Your task to perform on an android device: Empty the shopping cart on walmart. Add "jbl flip 4" to the cart on walmart Image 0: 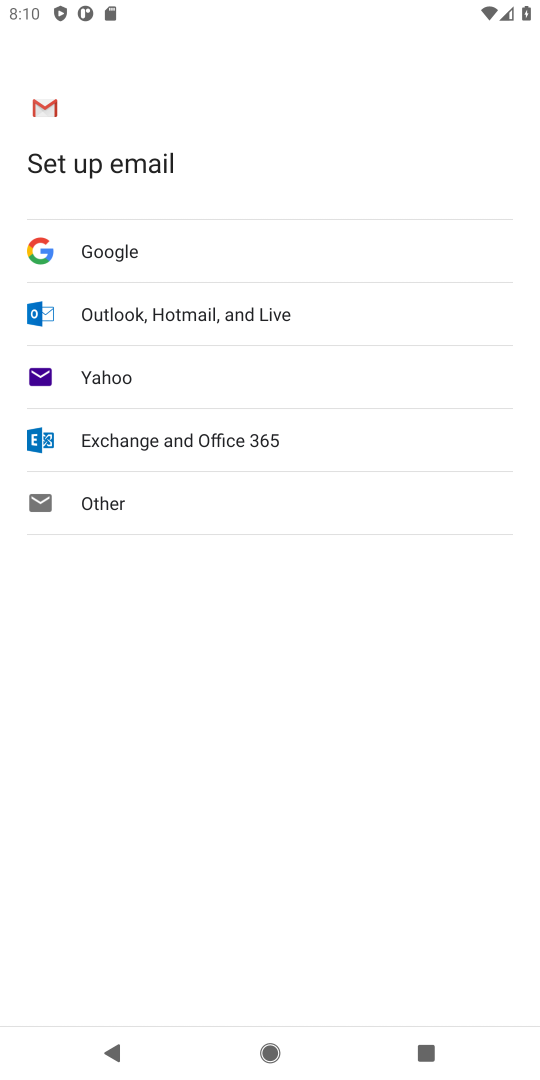
Step 0: press home button
Your task to perform on an android device: Empty the shopping cart on walmart. Add "jbl flip 4" to the cart on walmart Image 1: 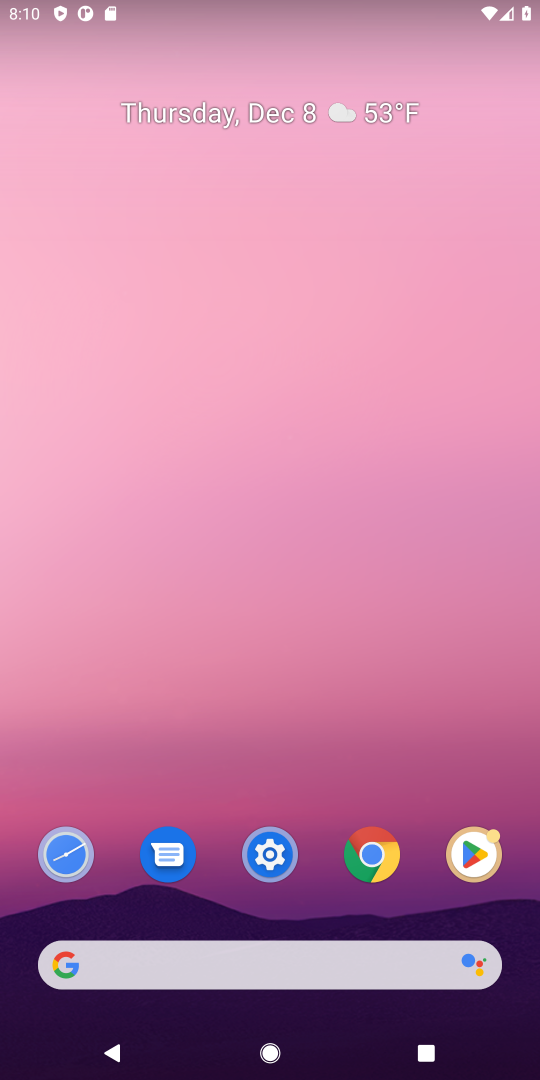
Step 1: click (117, 956)
Your task to perform on an android device: Empty the shopping cart on walmart. Add "jbl flip 4" to the cart on walmart Image 2: 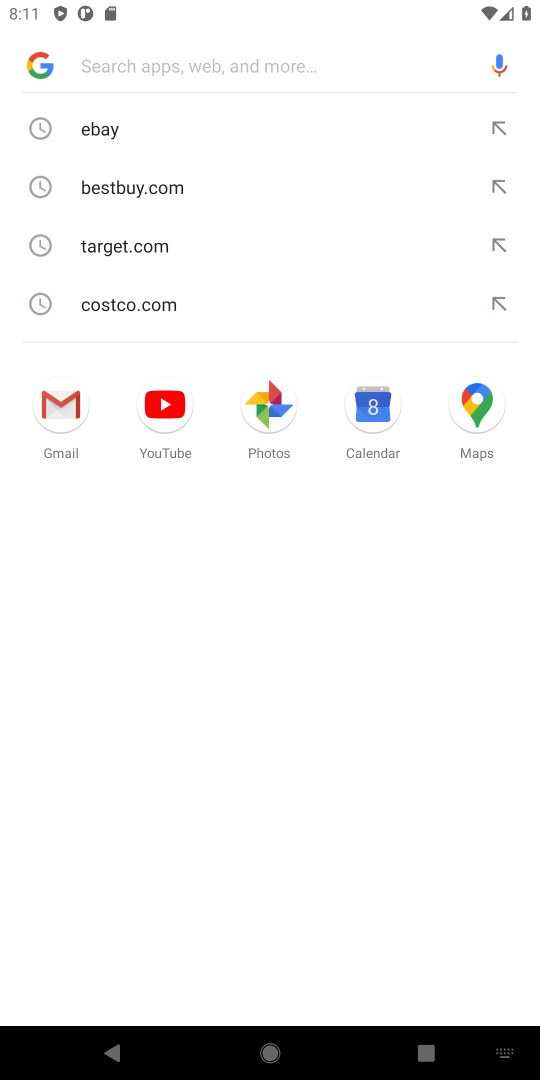
Step 2: type "walmart"
Your task to perform on an android device: Empty the shopping cart on walmart. Add "jbl flip 4" to the cart on walmart Image 3: 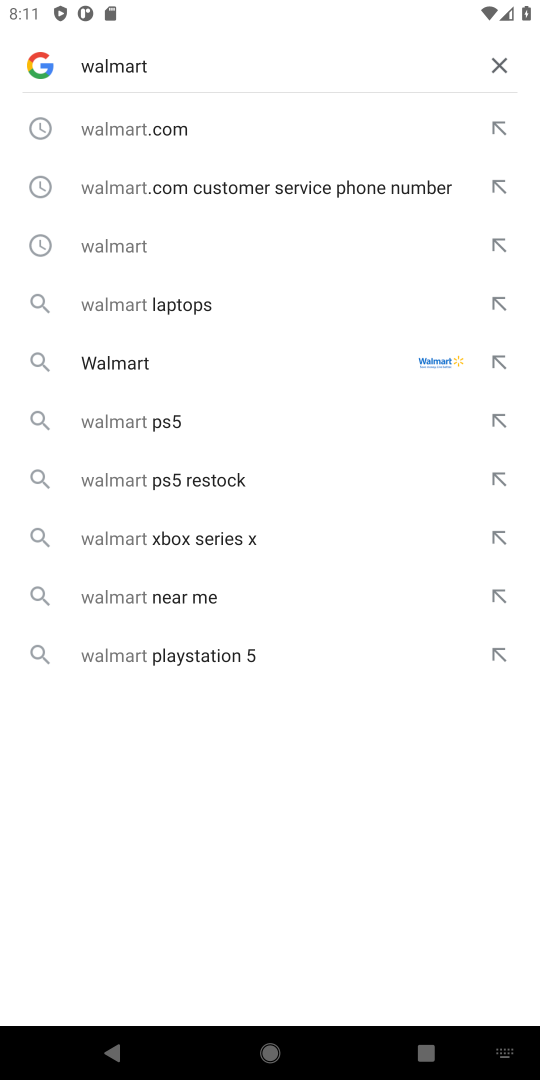
Step 3: press enter
Your task to perform on an android device: Empty the shopping cart on walmart. Add "jbl flip 4" to the cart on walmart Image 4: 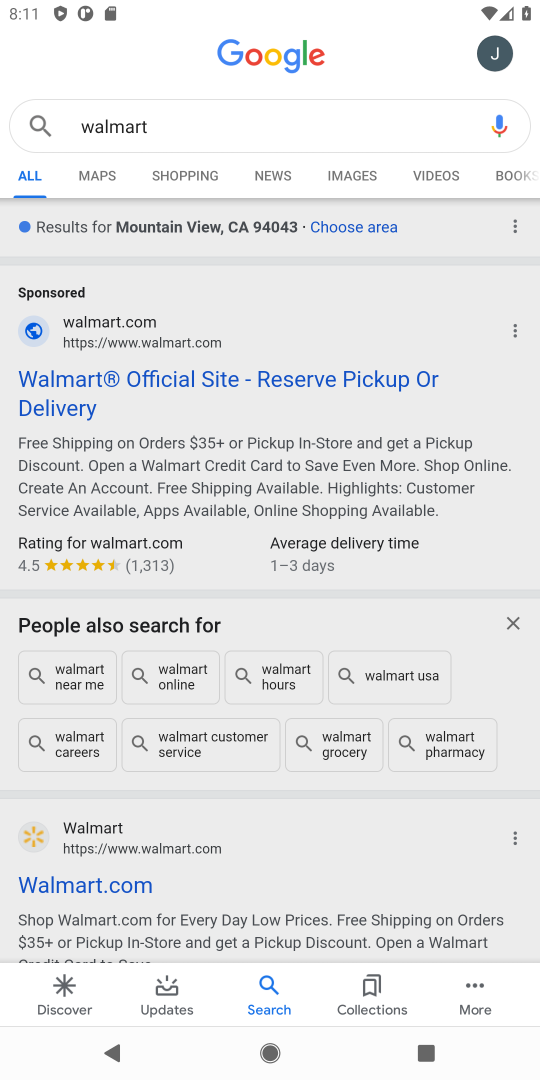
Step 4: click (288, 381)
Your task to perform on an android device: Empty the shopping cart on walmart. Add "jbl flip 4" to the cart on walmart Image 5: 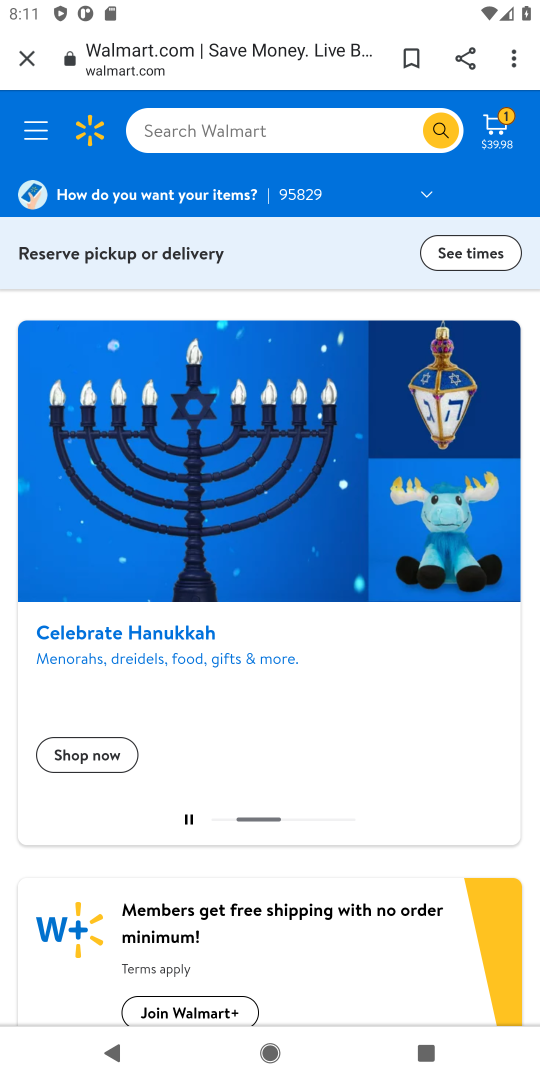
Step 5: click (494, 118)
Your task to perform on an android device: Empty the shopping cart on walmart. Add "jbl flip 4" to the cart on walmart Image 6: 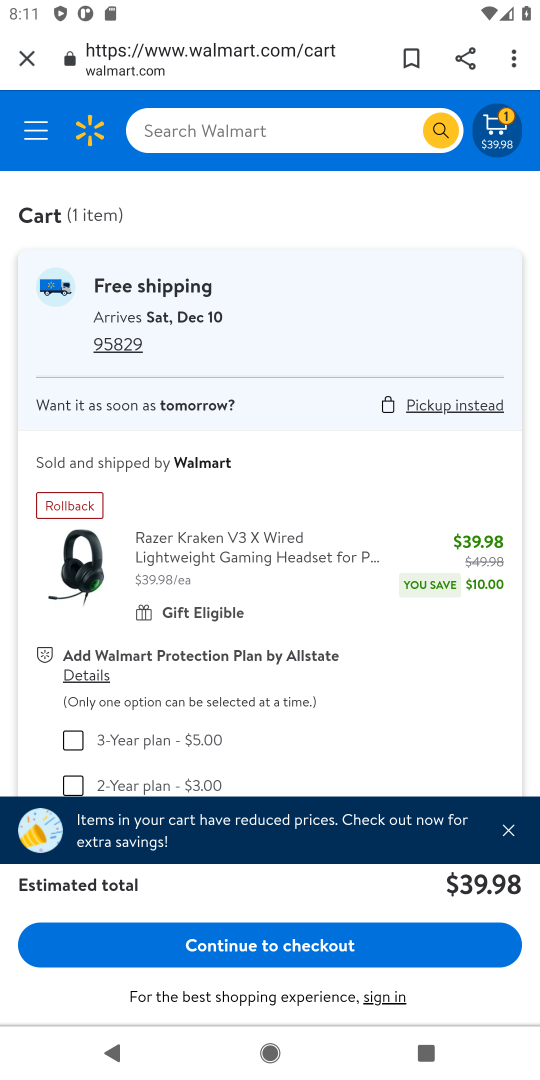
Step 6: drag from (228, 683) to (241, 333)
Your task to perform on an android device: Empty the shopping cart on walmart. Add "jbl flip 4" to the cart on walmart Image 7: 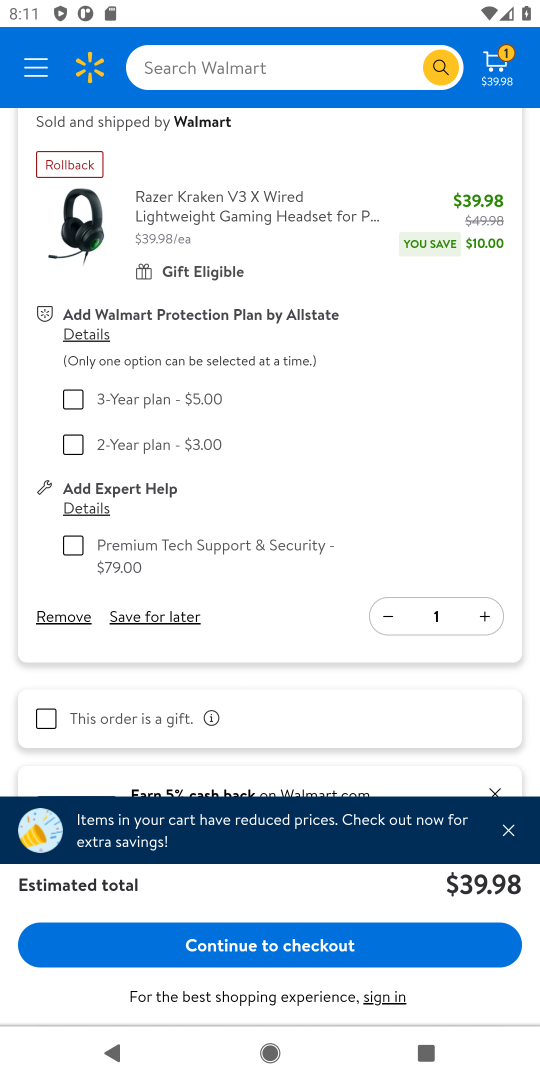
Step 7: click (45, 614)
Your task to perform on an android device: Empty the shopping cart on walmart. Add "jbl flip 4" to the cart on walmart Image 8: 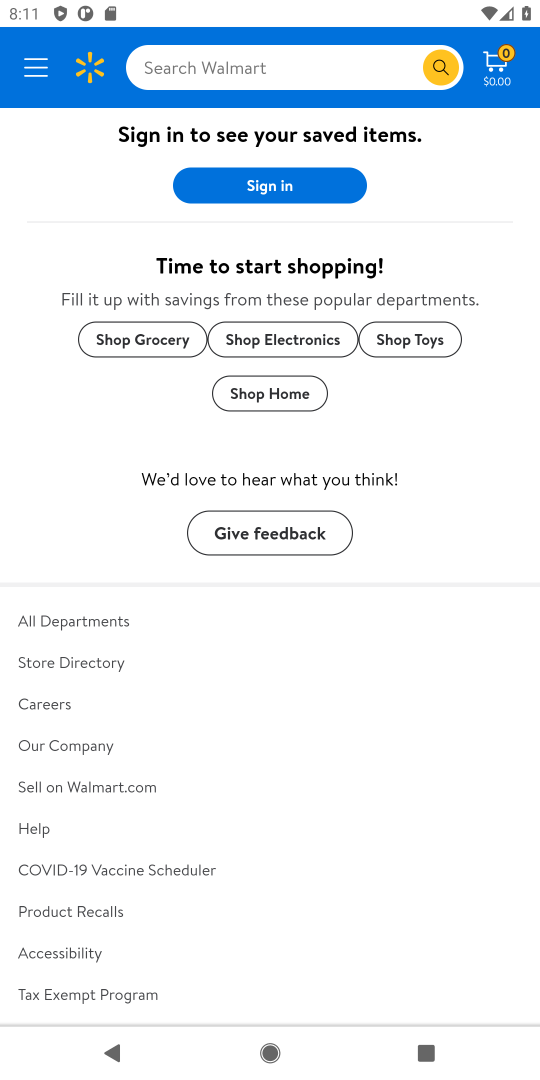
Step 8: click (227, 74)
Your task to perform on an android device: Empty the shopping cart on walmart. Add "jbl flip 4" to the cart on walmart Image 9: 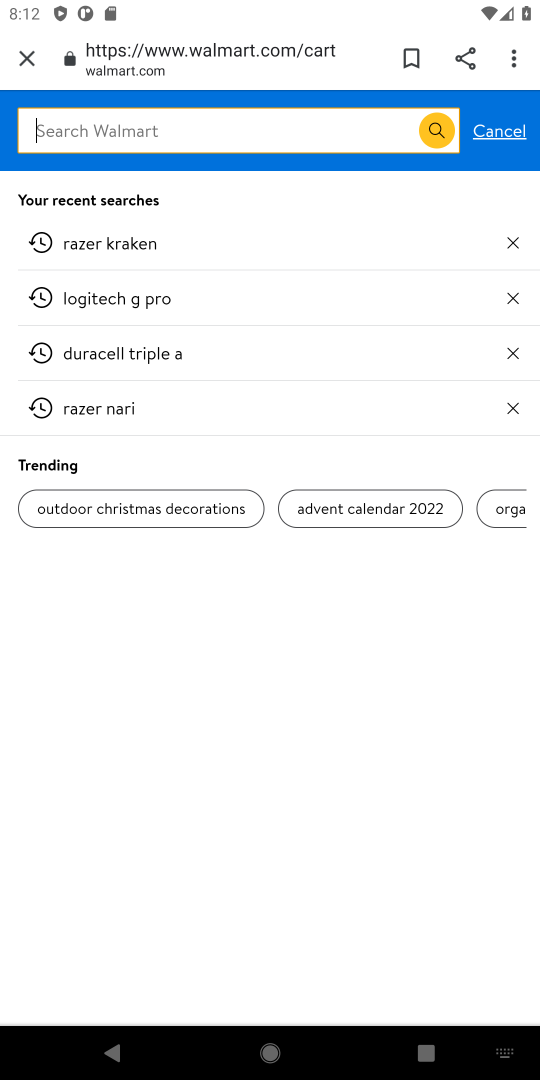
Step 9: type "jbl flip 4"
Your task to perform on an android device: Empty the shopping cart on walmart. Add "jbl flip 4" to the cart on walmart Image 10: 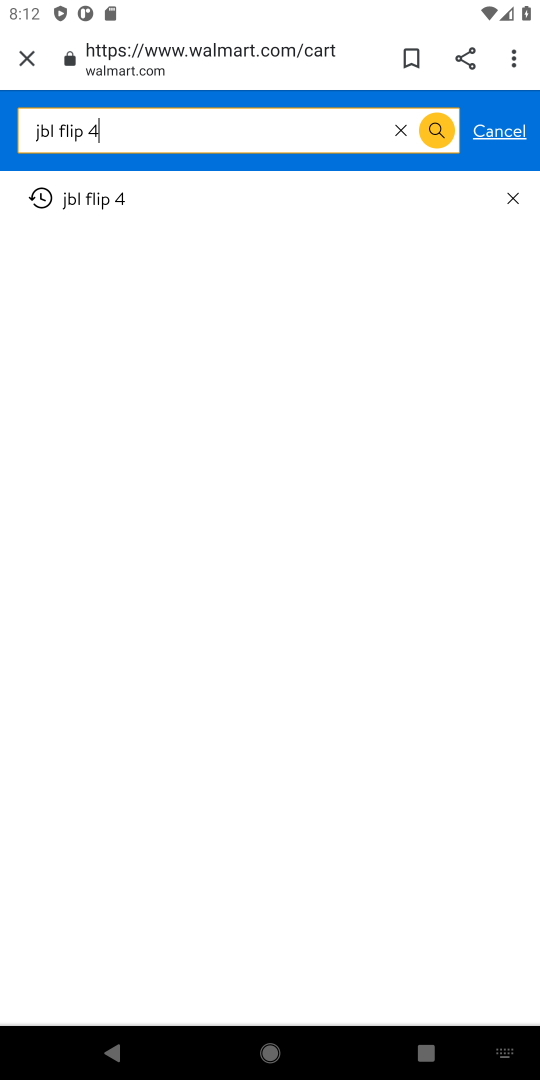
Step 10: press enter
Your task to perform on an android device: Empty the shopping cart on walmart. Add "jbl flip 4" to the cart on walmart Image 11: 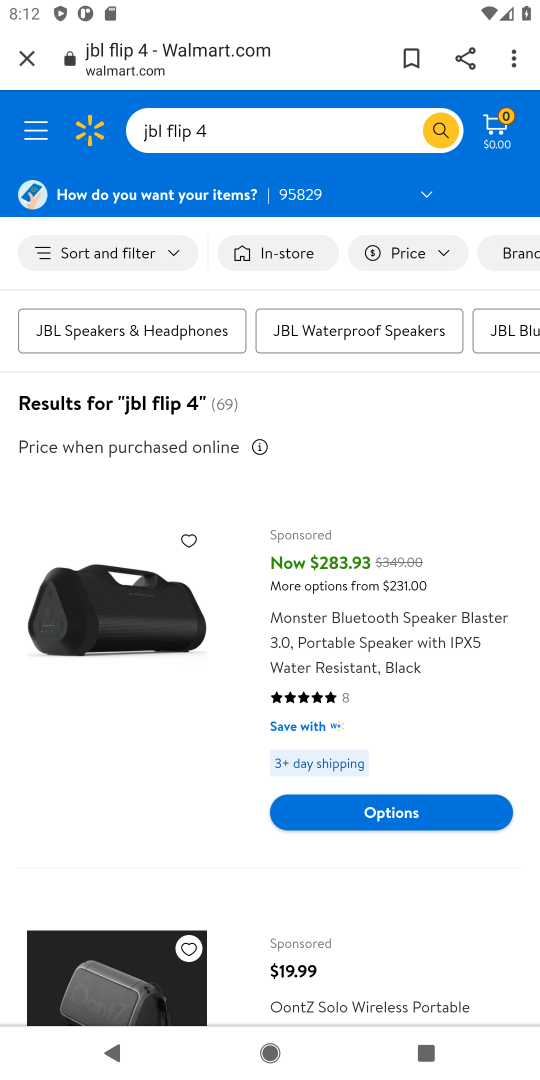
Step 11: drag from (397, 910) to (406, 408)
Your task to perform on an android device: Empty the shopping cart on walmart. Add "jbl flip 4" to the cart on walmart Image 12: 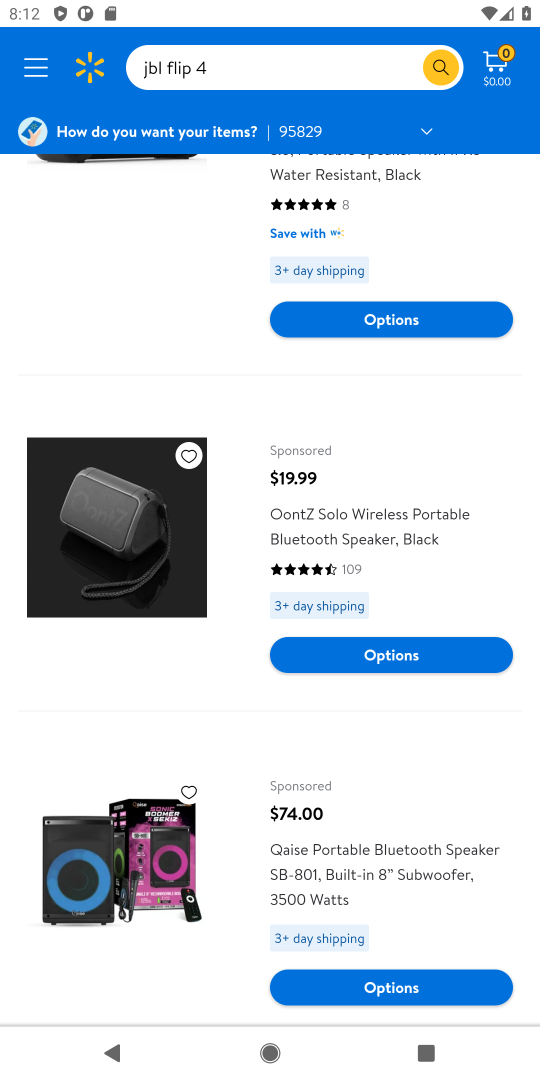
Step 12: drag from (330, 884) to (376, 402)
Your task to perform on an android device: Empty the shopping cart on walmart. Add "jbl flip 4" to the cart on walmart Image 13: 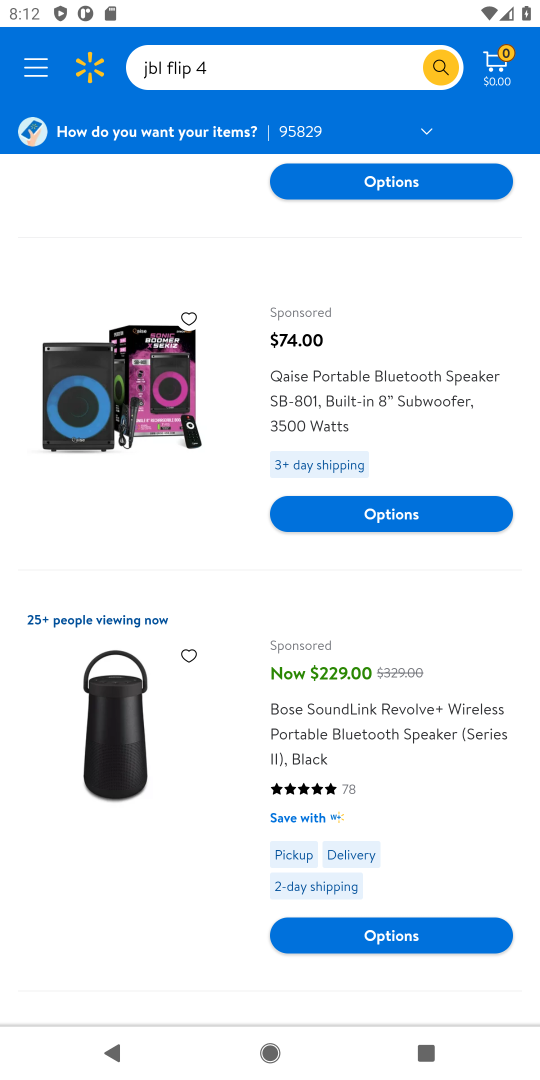
Step 13: drag from (200, 860) to (271, 417)
Your task to perform on an android device: Empty the shopping cart on walmart. Add "jbl flip 4" to the cart on walmart Image 14: 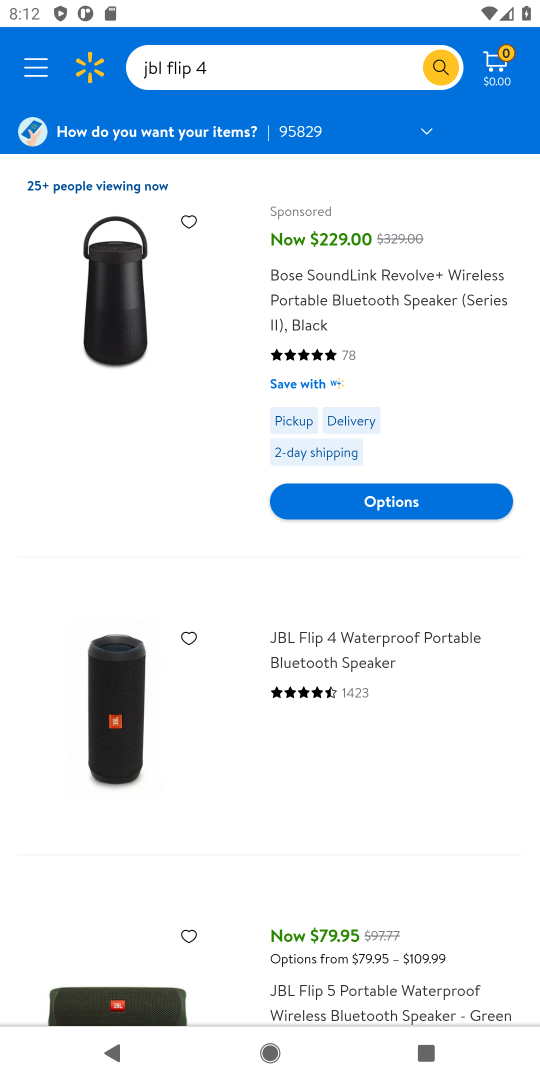
Step 14: click (351, 652)
Your task to perform on an android device: Empty the shopping cart on walmart. Add "jbl flip 4" to the cart on walmart Image 15: 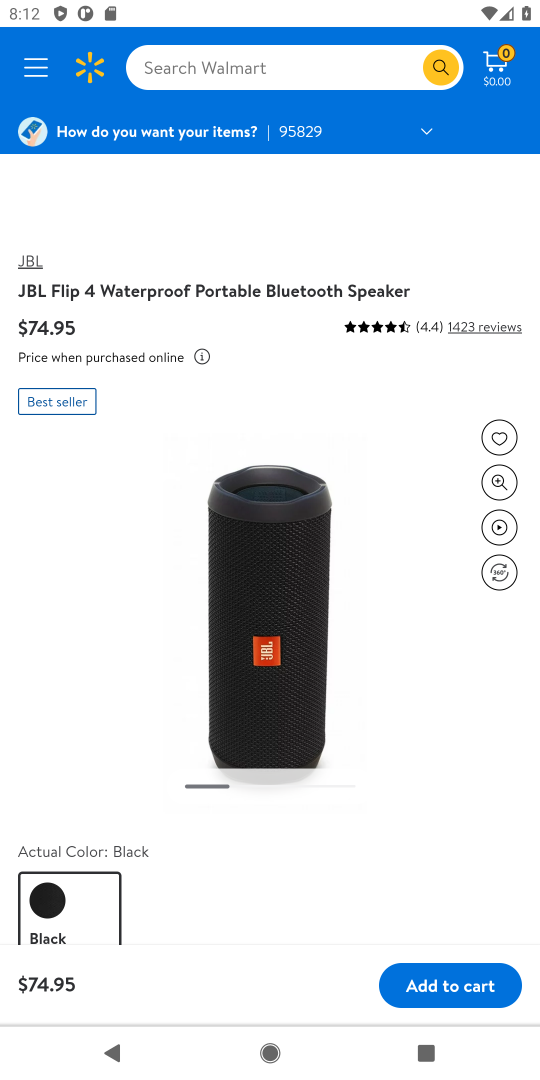
Step 15: click (457, 988)
Your task to perform on an android device: Empty the shopping cart on walmart. Add "jbl flip 4" to the cart on walmart Image 16: 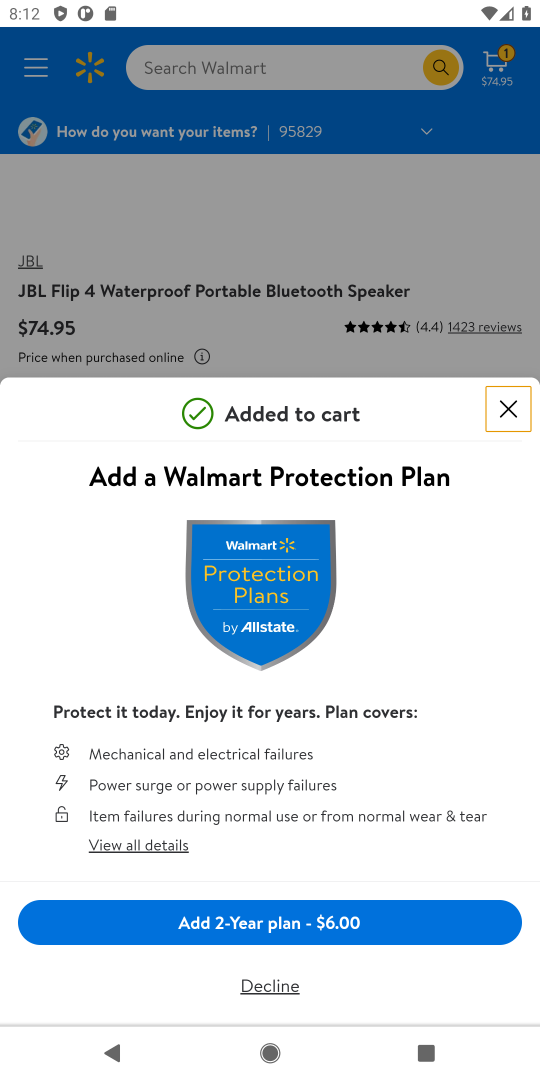
Step 16: click (261, 993)
Your task to perform on an android device: Empty the shopping cart on walmart. Add "jbl flip 4" to the cart on walmart Image 17: 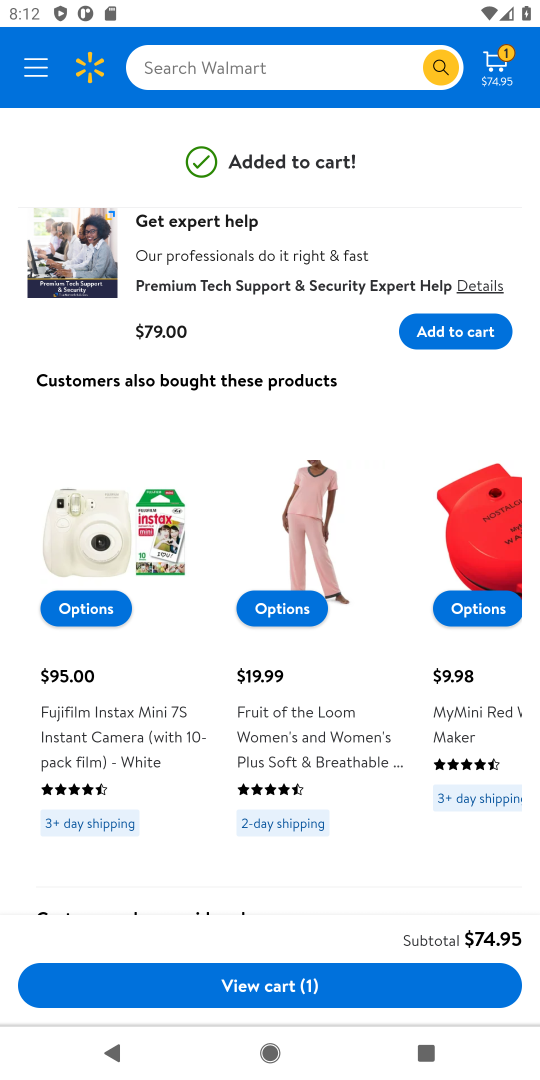
Step 17: task complete